Your task to perform on an android device: Open Amazon Image 0: 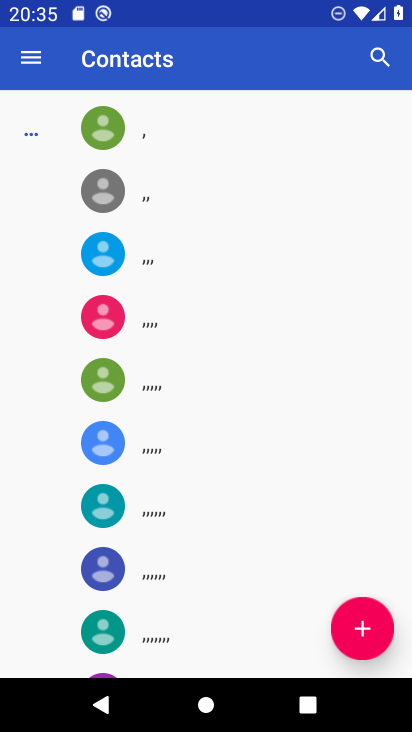
Step 0: press home button
Your task to perform on an android device: Open Amazon Image 1: 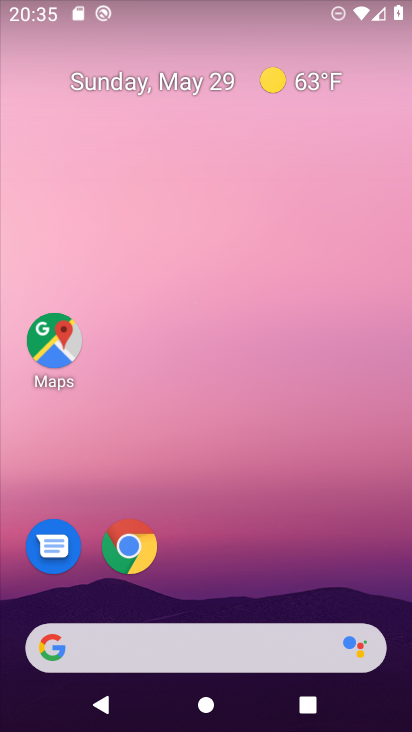
Step 1: click (130, 552)
Your task to perform on an android device: Open Amazon Image 2: 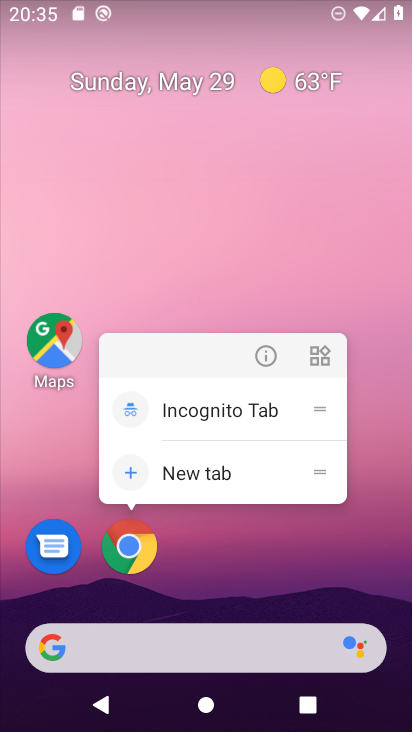
Step 2: click (132, 555)
Your task to perform on an android device: Open Amazon Image 3: 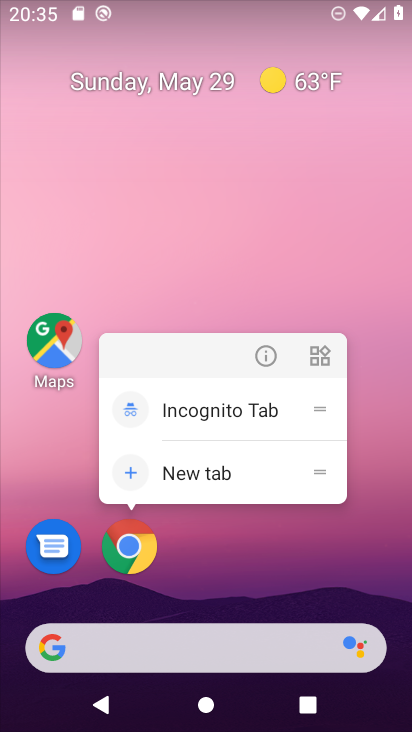
Step 3: click (131, 548)
Your task to perform on an android device: Open Amazon Image 4: 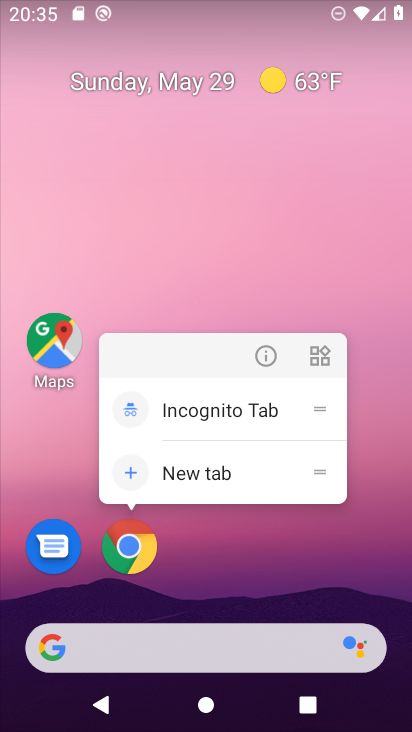
Step 4: click (131, 551)
Your task to perform on an android device: Open Amazon Image 5: 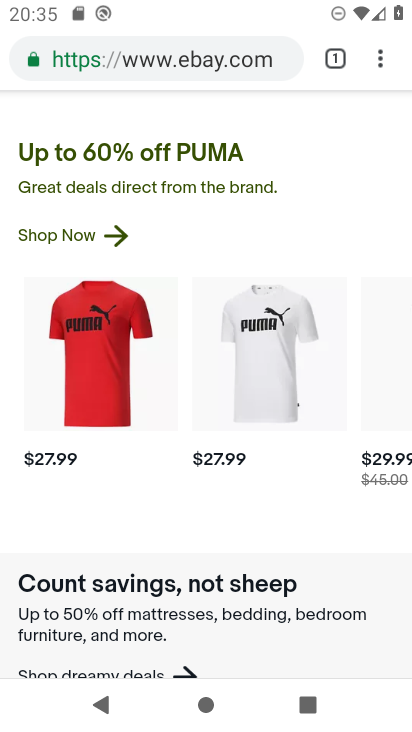
Step 5: drag from (376, 57) to (300, 121)
Your task to perform on an android device: Open Amazon Image 6: 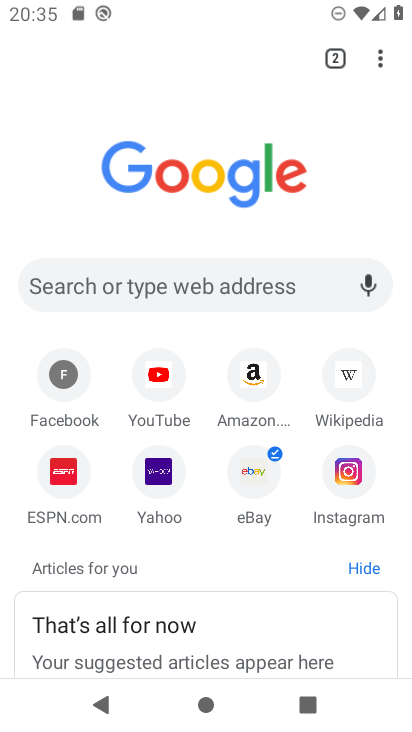
Step 6: click (248, 378)
Your task to perform on an android device: Open Amazon Image 7: 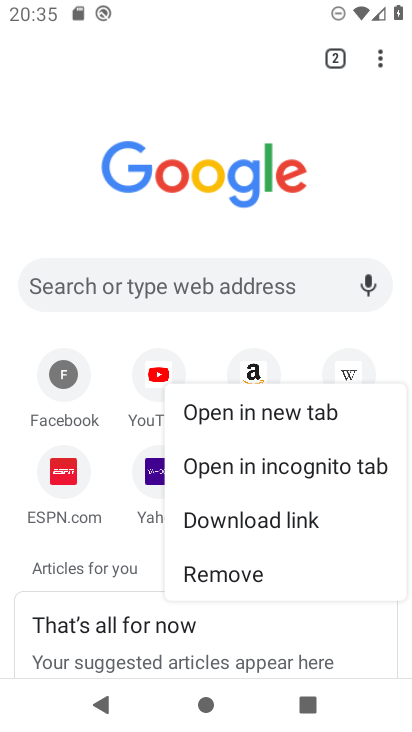
Step 7: click (248, 377)
Your task to perform on an android device: Open Amazon Image 8: 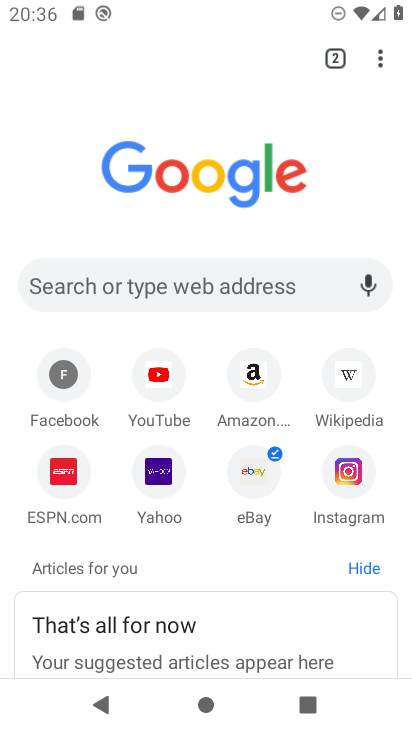
Step 8: click (248, 378)
Your task to perform on an android device: Open Amazon Image 9: 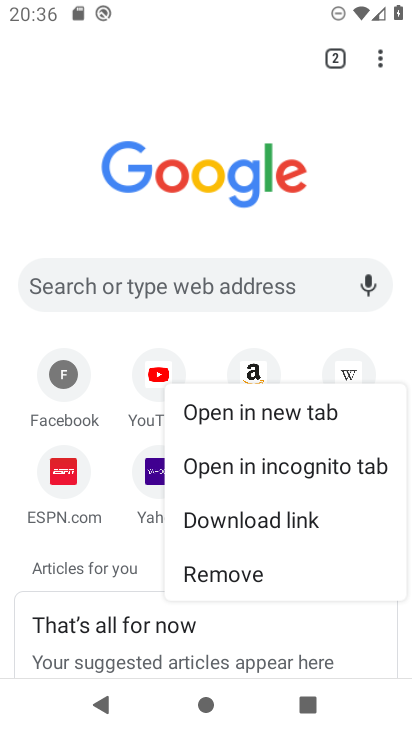
Step 9: click (262, 368)
Your task to perform on an android device: Open Amazon Image 10: 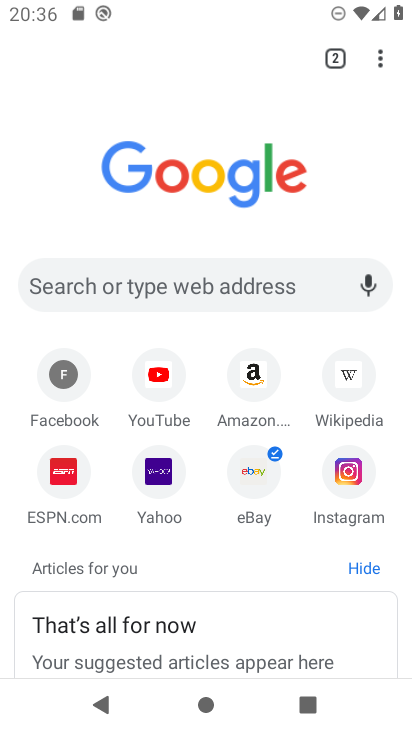
Step 10: click (255, 380)
Your task to perform on an android device: Open Amazon Image 11: 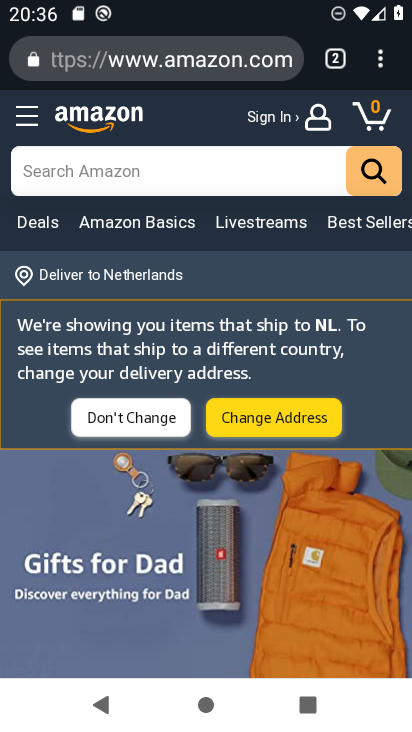
Step 11: task complete